Your task to perform on an android device: Open Google Maps and go to "Timeline" Image 0: 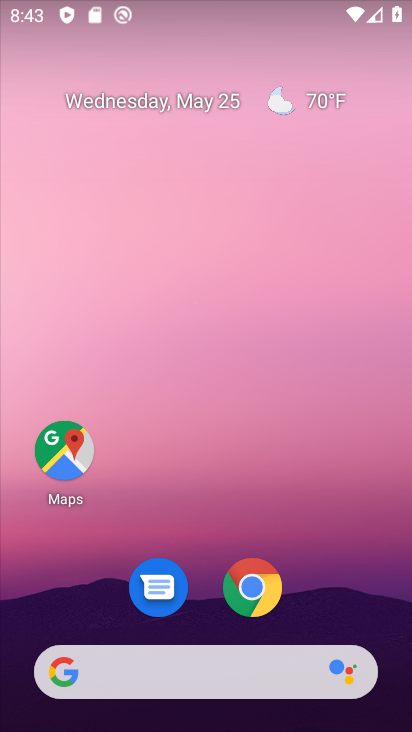
Step 0: click (53, 439)
Your task to perform on an android device: Open Google Maps and go to "Timeline" Image 1: 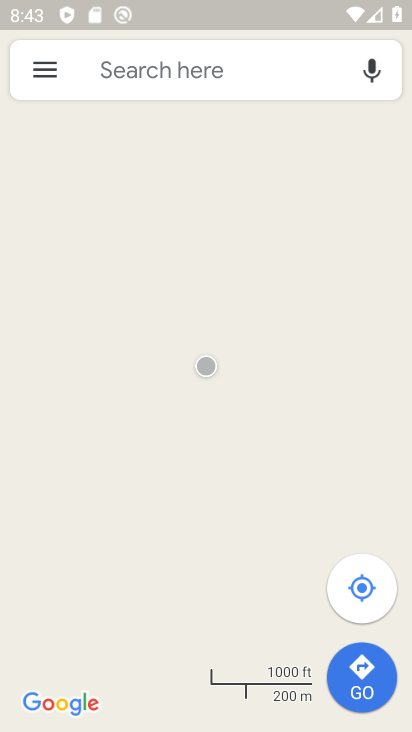
Step 1: click (36, 71)
Your task to perform on an android device: Open Google Maps and go to "Timeline" Image 2: 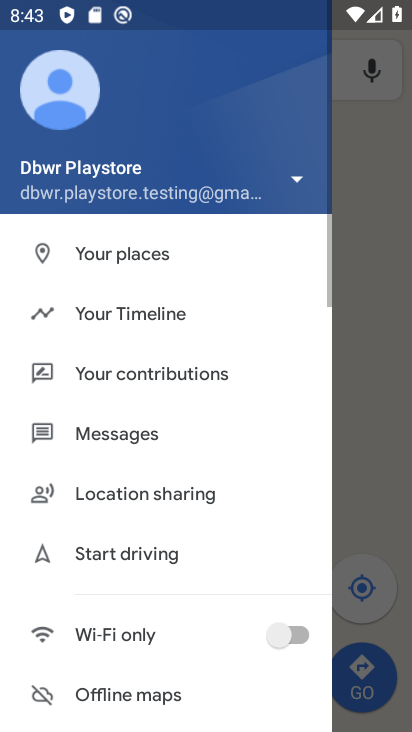
Step 2: click (140, 318)
Your task to perform on an android device: Open Google Maps and go to "Timeline" Image 3: 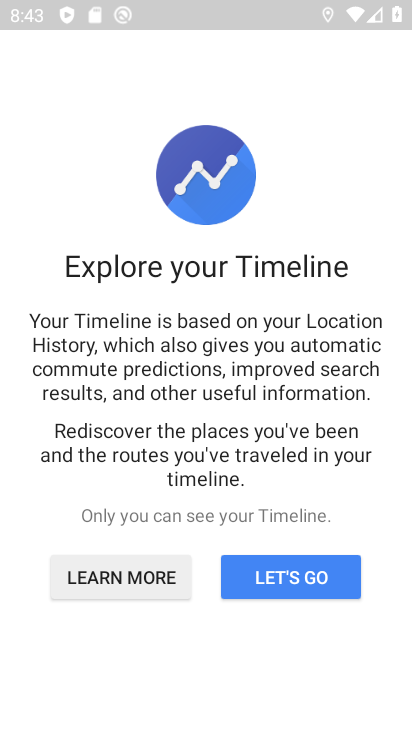
Step 3: click (342, 583)
Your task to perform on an android device: Open Google Maps and go to "Timeline" Image 4: 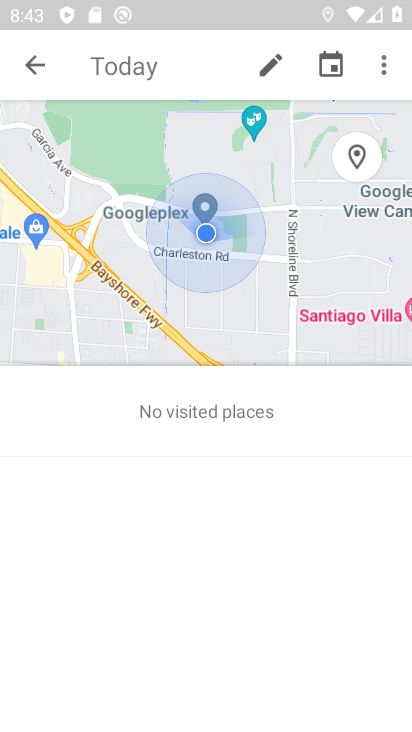
Step 4: task complete